Your task to perform on an android device: Go to settings Image 0: 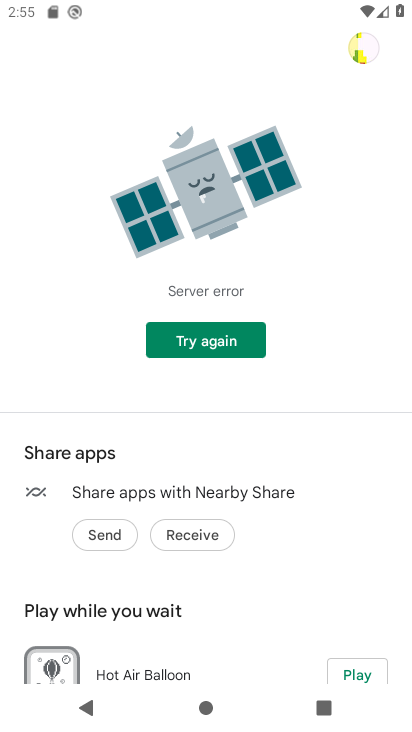
Step 0: press home button
Your task to perform on an android device: Go to settings Image 1: 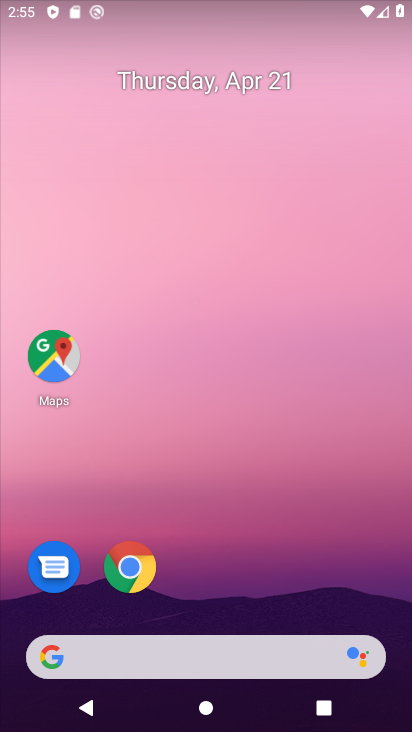
Step 1: drag from (305, 606) to (219, 95)
Your task to perform on an android device: Go to settings Image 2: 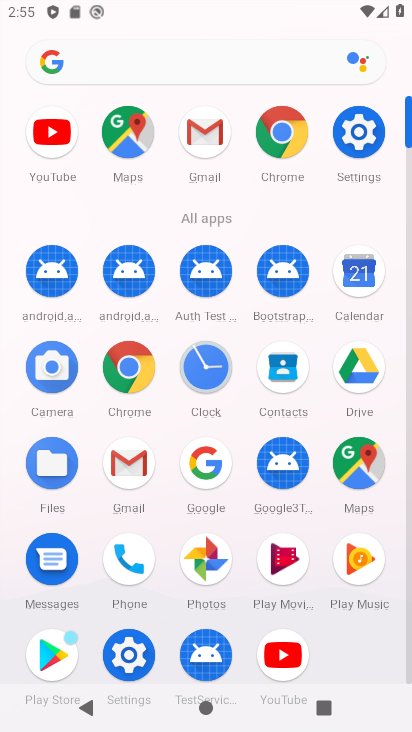
Step 2: click (350, 143)
Your task to perform on an android device: Go to settings Image 3: 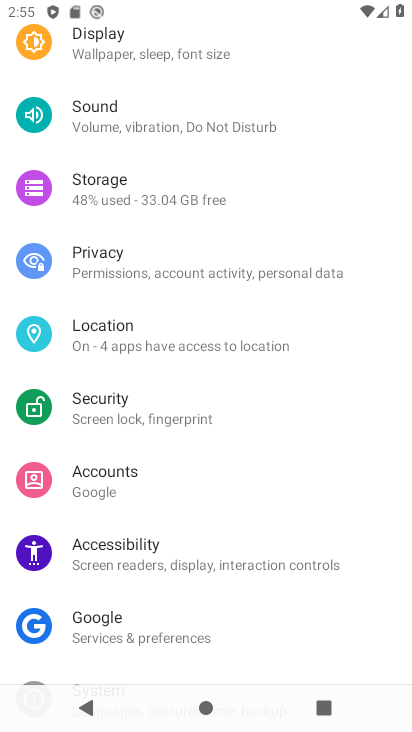
Step 3: task complete